Your task to perform on an android device: turn on wifi Image 0: 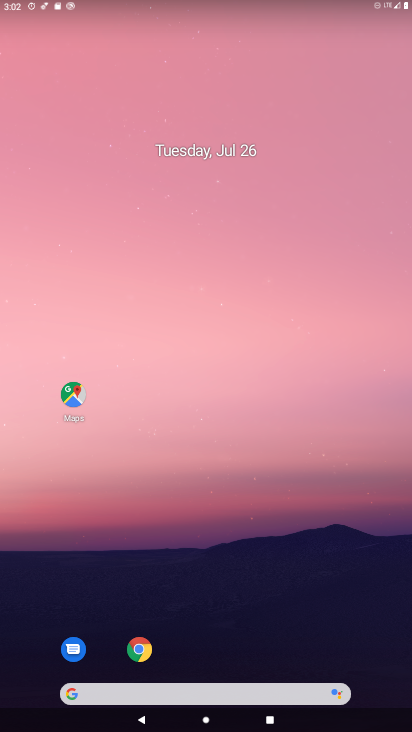
Step 0: press home button
Your task to perform on an android device: turn on wifi Image 1: 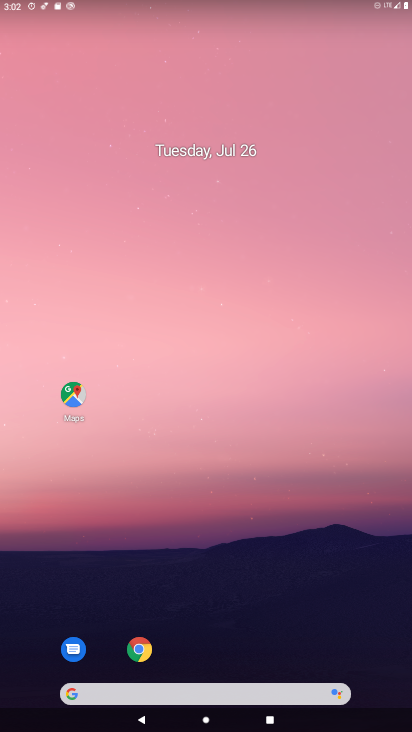
Step 1: drag from (340, 624) to (267, 53)
Your task to perform on an android device: turn on wifi Image 2: 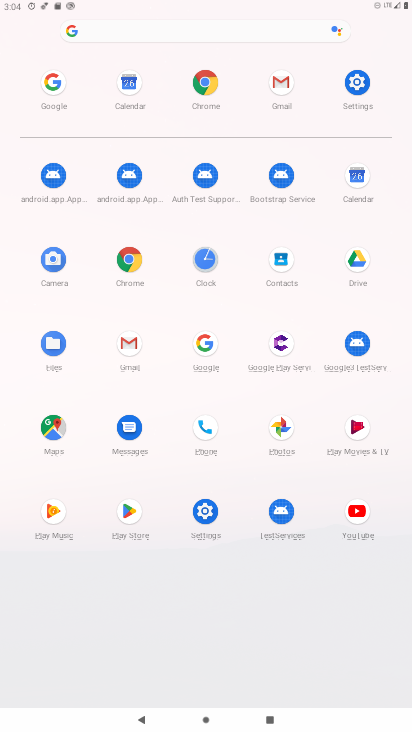
Step 2: drag from (135, 5) to (183, 540)
Your task to perform on an android device: turn on wifi Image 3: 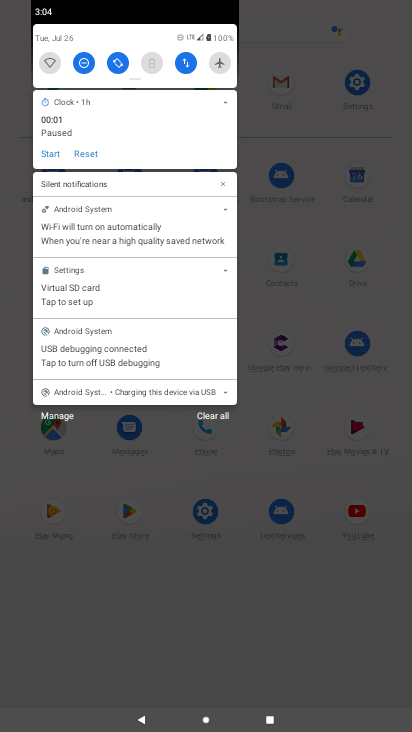
Step 3: click (46, 59)
Your task to perform on an android device: turn on wifi Image 4: 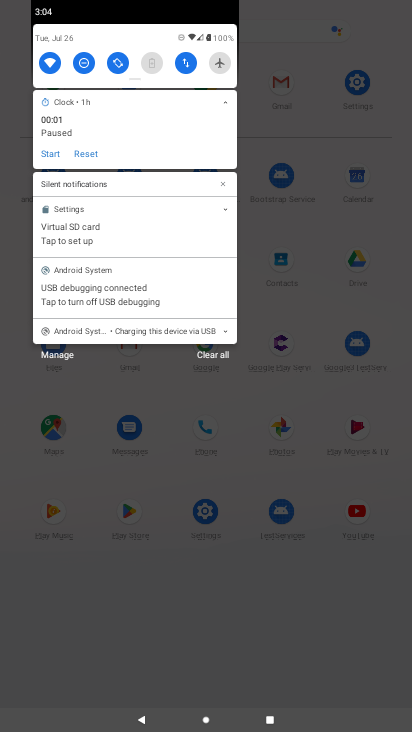
Step 4: task complete